Your task to perform on an android device: Add "razer blade" to the cart on costco.com, then select checkout. Image 0: 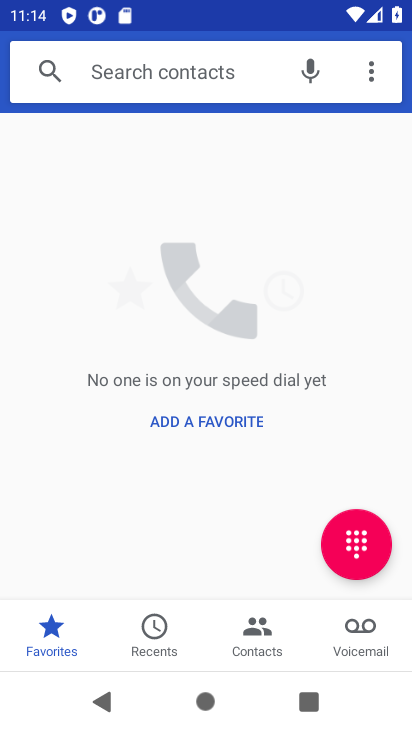
Step 0: press home button
Your task to perform on an android device: Add "razer blade" to the cart on costco.com, then select checkout. Image 1: 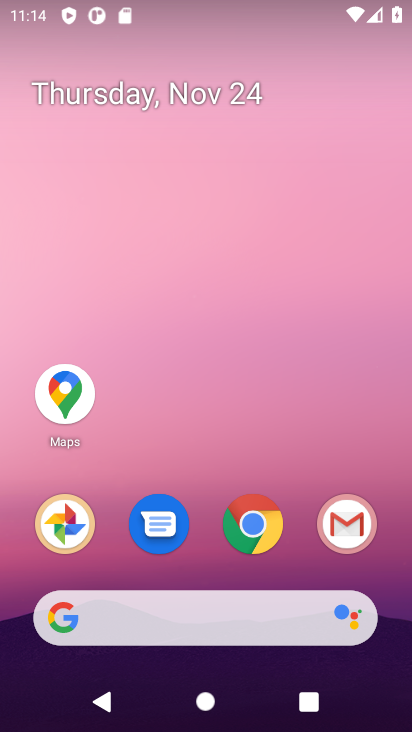
Step 1: click (247, 533)
Your task to perform on an android device: Add "razer blade" to the cart on costco.com, then select checkout. Image 2: 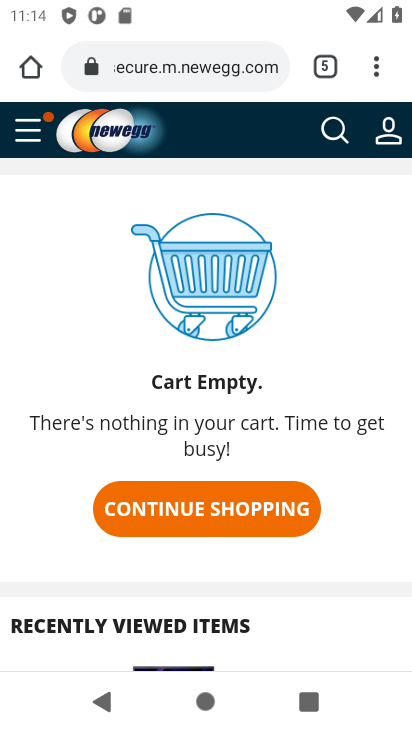
Step 2: click (166, 70)
Your task to perform on an android device: Add "razer blade" to the cart on costco.com, then select checkout. Image 3: 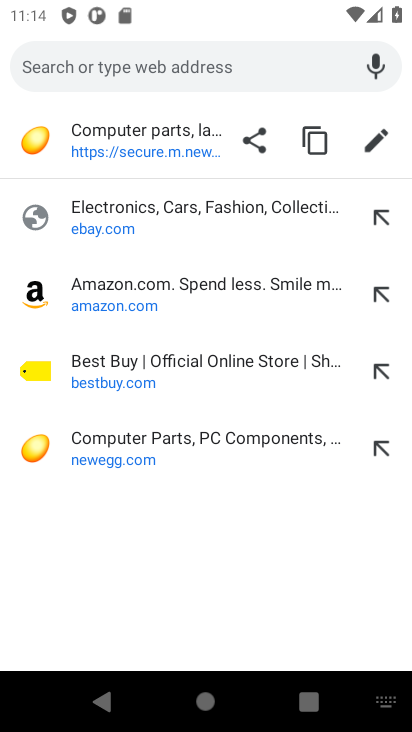
Step 3: type "costco.com"
Your task to perform on an android device: Add "razer blade" to the cart on costco.com, then select checkout. Image 4: 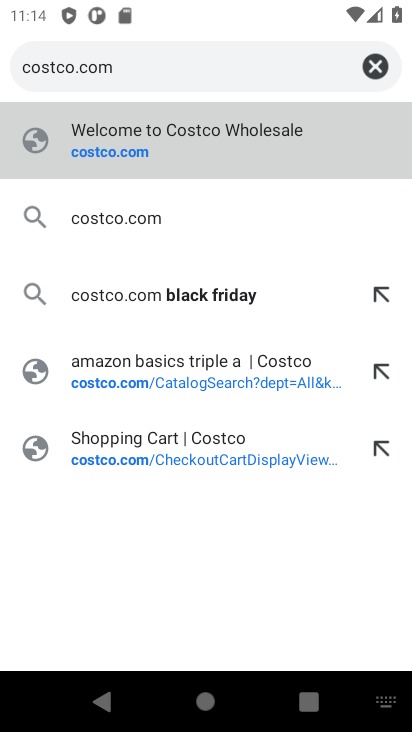
Step 4: click (96, 150)
Your task to perform on an android device: Add "razer blade" to the cart on costco.com, then select checkout. Image 5: 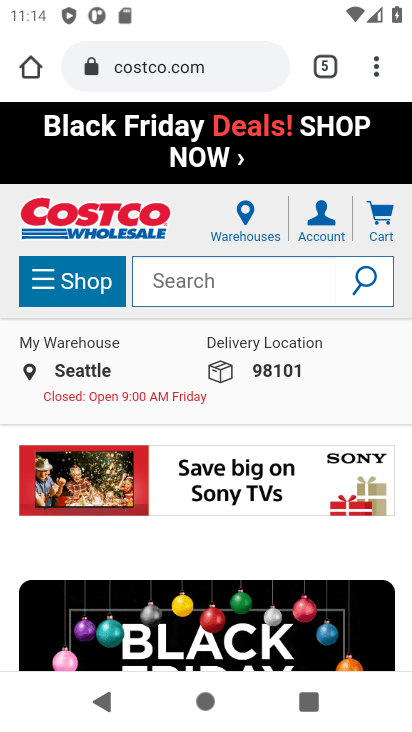
Step 5: click (177, 276)
Your task to perform on an android device: Add "razer blade" to the cart on costco.com, then select checkout. Image 6: 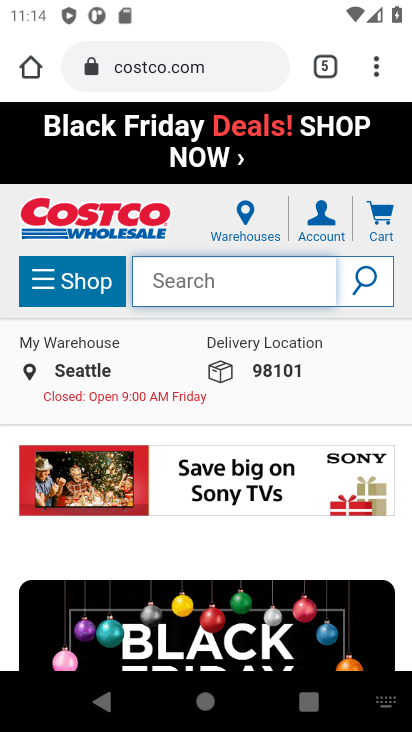
Step 6: type "razer blade"
Your task to perform on an android device: Add "razer blade" to the cart on costco.com, then select checkout. Image 7: 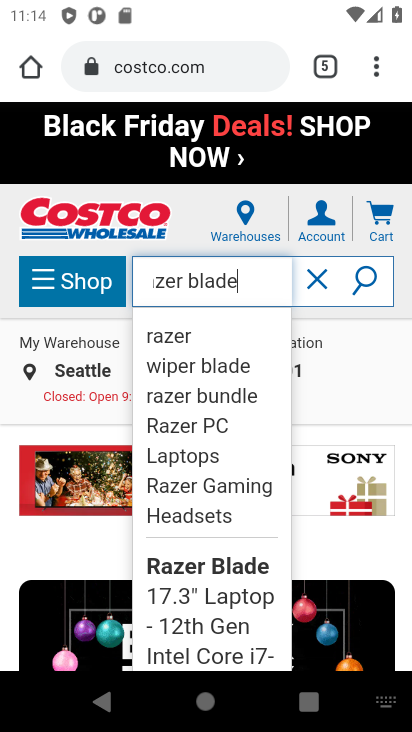
Step 7: click (374, 279)
Your task to perform on an android device: Add "razer blade" to the cart on costco.com, then select checkout. Image 8: 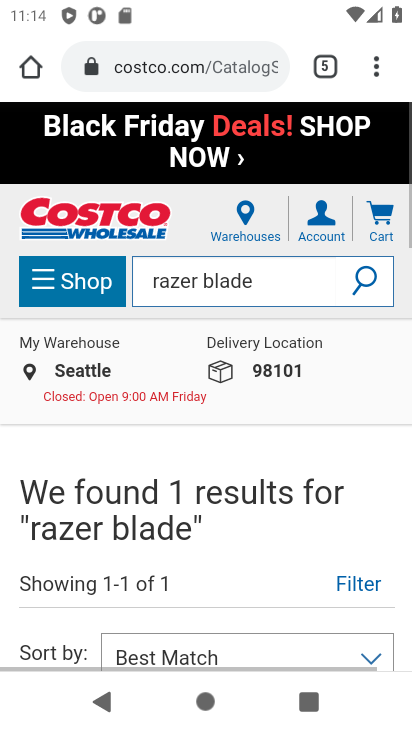
Step 8: drag from (175, 521) to (164, 259)
Your task to perform on an android device: Add "razer blade" to the cart on costco.com, then select checkout. Image 9: 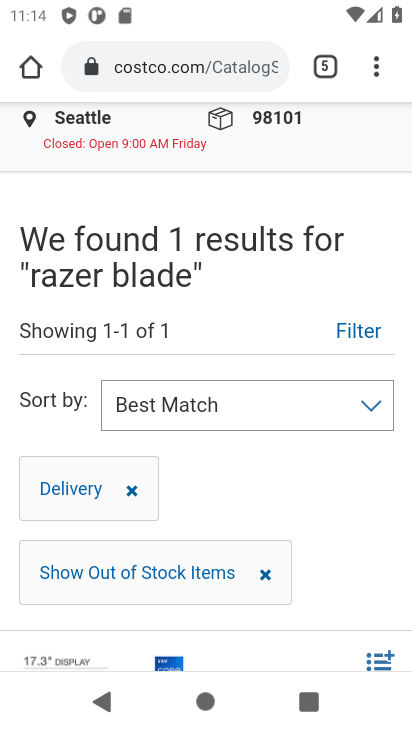
Step 9: drag from (194, 486) to (187, 265)
Your task to perform on an android device: Add "razer blade" to the cart on costco.com, then select checkout. Image 10: 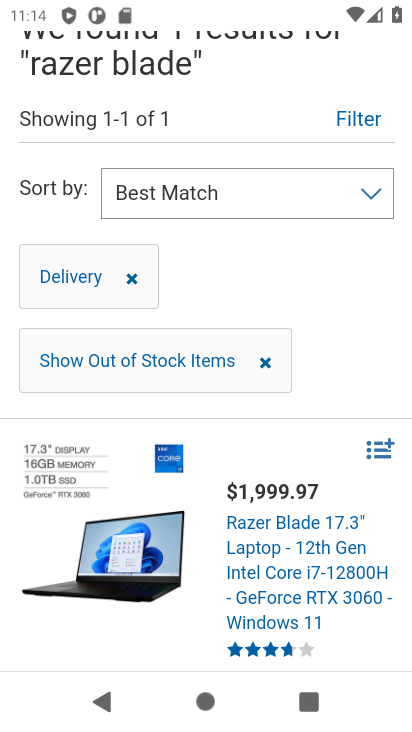
Step 10: drag from (224, 605) to (221, 417)
Your task to perform on an android device: Add "razer blade" to the cart on costco.com, then select checkout. Image 11: 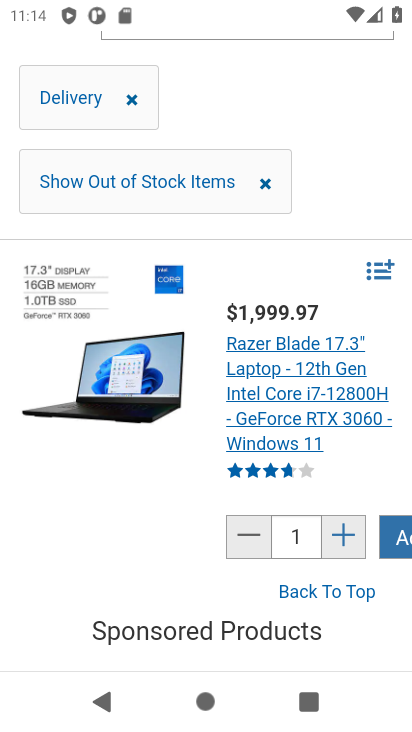
Step 11: click (396, 540)
Your task to perform on an android device: Add "razer blade" to the cart on costco.com, then select checkout. Image 12: 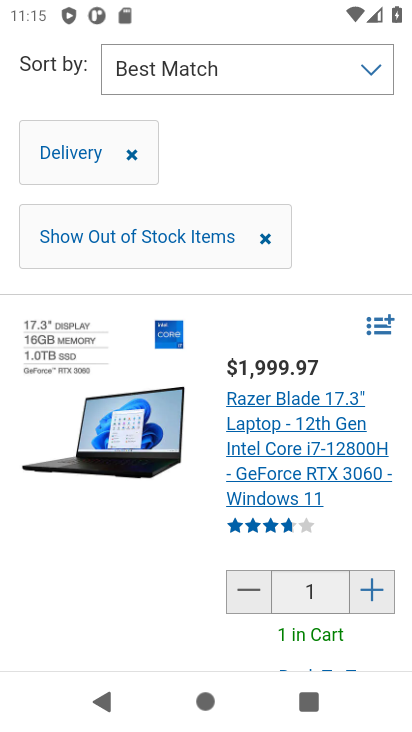
Step 12: drag from (204, 435) to (189, 702)
Your task to perform on an android device: Add "razer blade" to the cart on costco.com, then select checkout. Image 13: 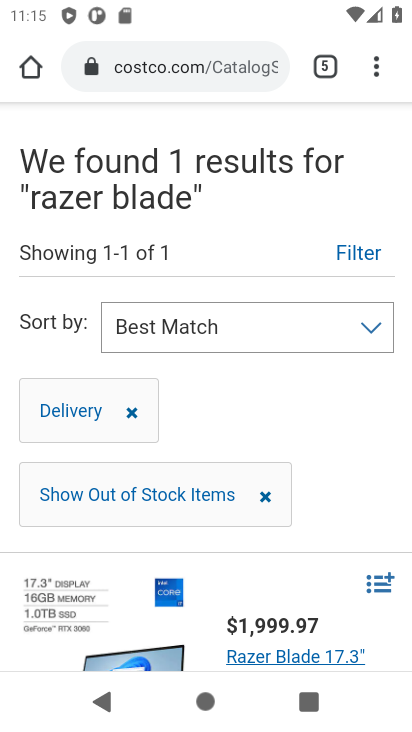
Step 13: drag from (373, 184) to (363, 461)
Your task to perform on an android device: Add "razer blade" to the cart on costco.com, then select checkout. Image 14: 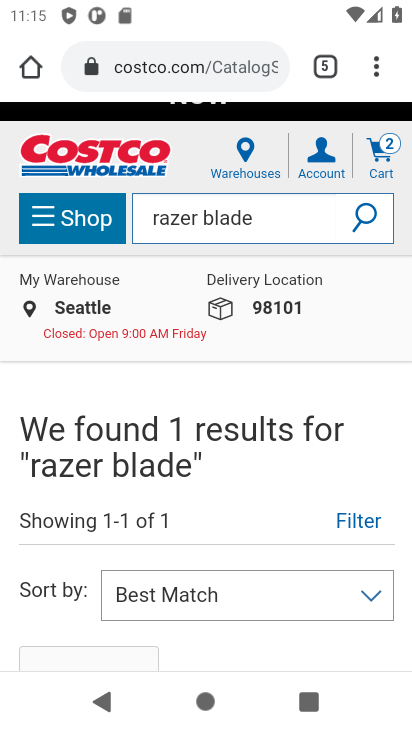
Step 14: click (381, 158)
Your task to perform on an android device: Add "razer blade" to the cart on costco.com, then select checkout. Image 15: 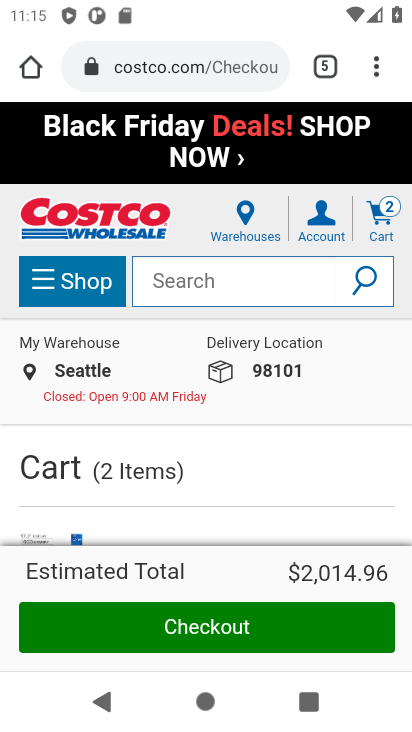
Step 15: click (195, 634)
Your task to perform on an android device: Add "razer blade" to the cart on costco.com, then select checkout. Image 16: 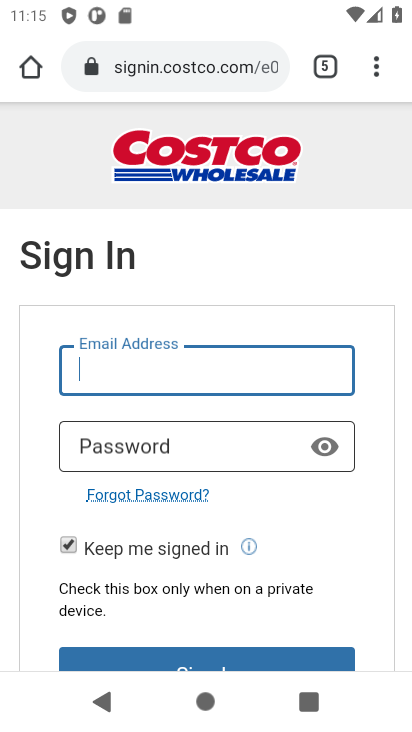
Step 16: task complete